Your task to perform on an android device: turn pop-ups off in chrome Image 0: 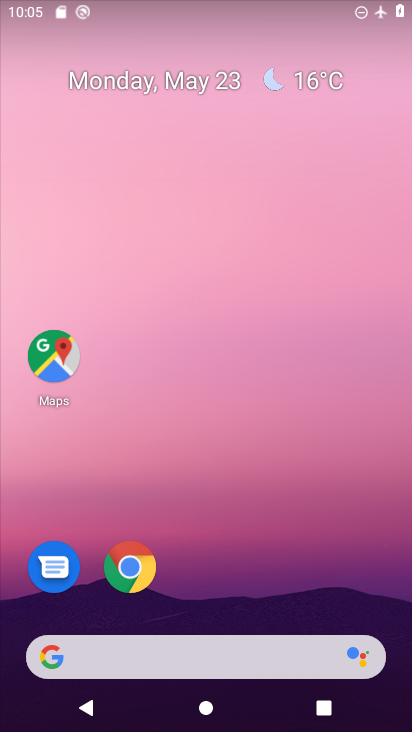
Step 0: drag from (273, 1) to (234, 0)
Your task to perform on an android device: turn pop-ups off in chrome Image 1: 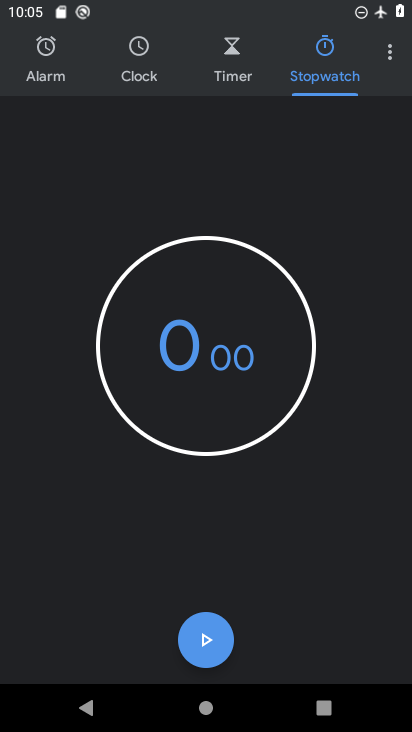
Step 1: press home button
Your task to perform on an android device: turn pop-ups off in chrome Image 2: 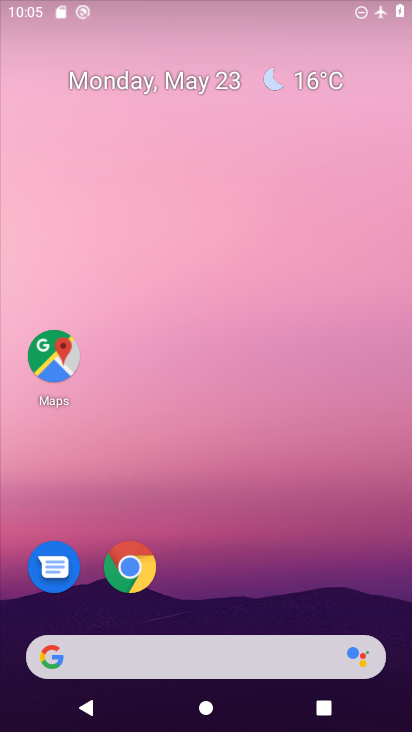
Step 2: drag from (224, 620) to (249, 9)
Your task to perform on an android device: turn pop-ups off in chrome Image 3: 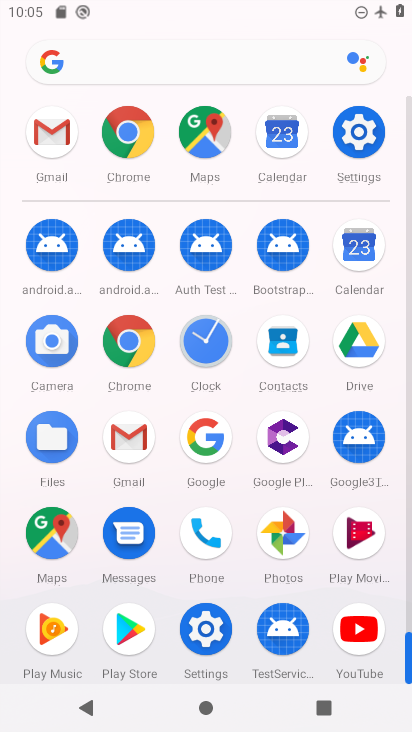
Step 3: click (128, 333)
Your task to perform on an android device: turn pop-ups off in chrome Image 4: 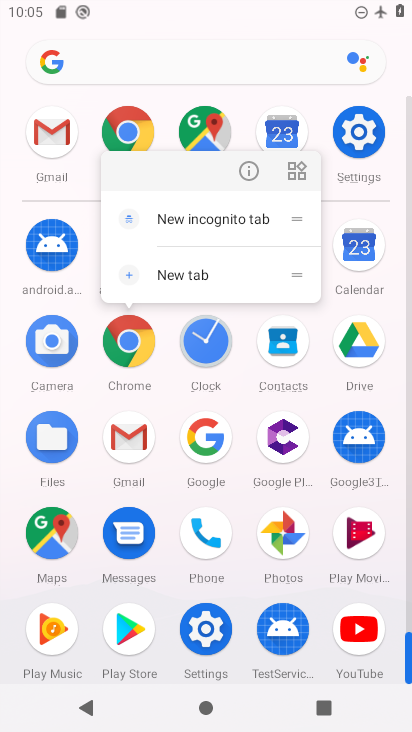
Step 4: click (255, 180)
Your task to perform on an android device: turn pop-ups off in chrome Image 5: 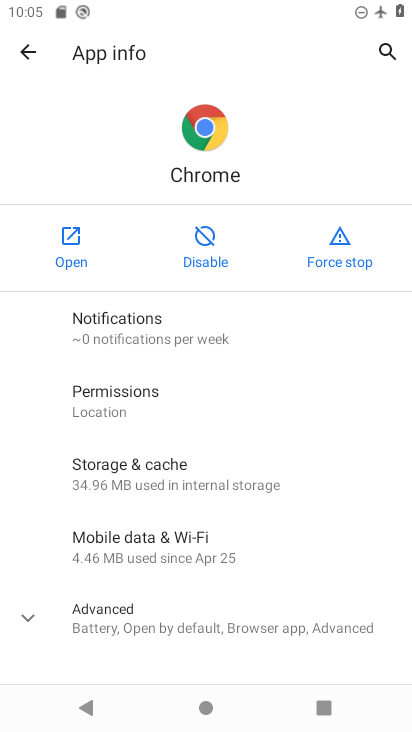
Step 5: click (71, 239)
Your task to perform on an android device: turn pop-ups off in chrome Image 6: 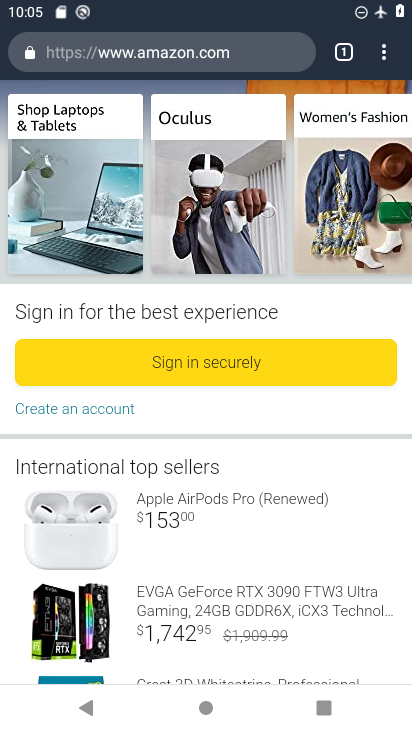
Step 6: click (385, 52)
Your task to perform on an android device: turn pop-ups off in chrome Image 7: 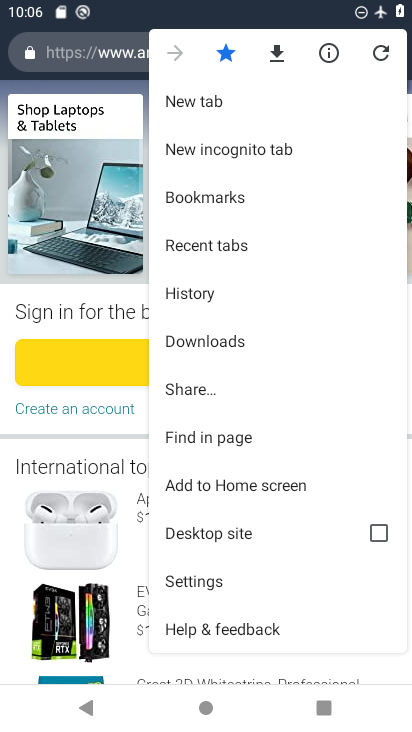
Step 7: click (204, 580)
Your task to perform on an android device: turn pop-ups off in chrome Image 8: 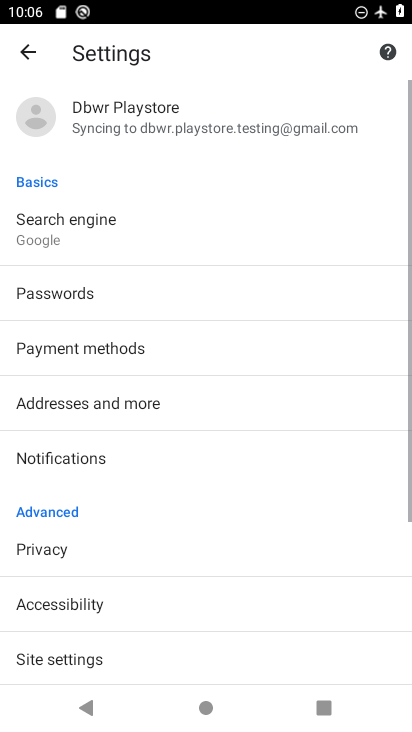
Step 8: drag from (212, 562) to (279, 84)
Your task to perform on an android device: turn pop-ups off in chrome Image 9: 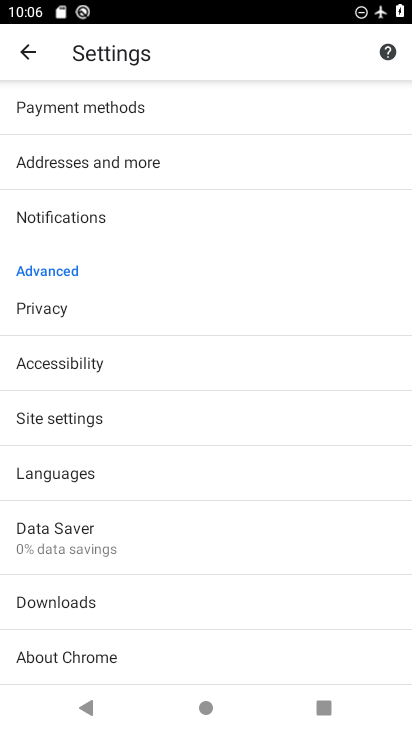
Step 9: drag from (120, 553) to (175, 358)
Your task to perform on an android device: turn pop-ups off in chrome Image 10: 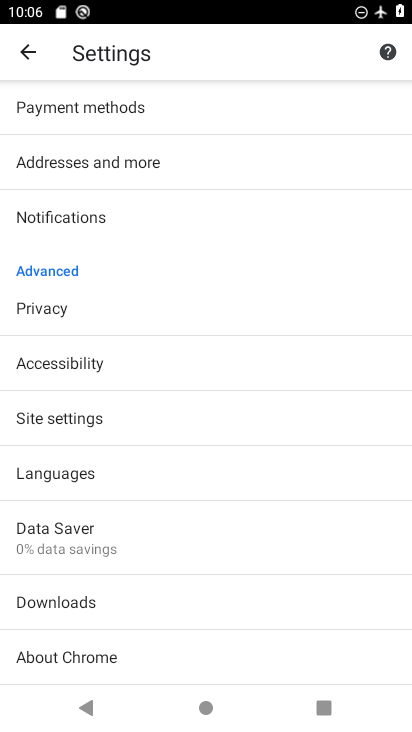
Step 10: click (72, 422)
Your task to perform on an android device: turn pop-ups off in chrome Image 11: 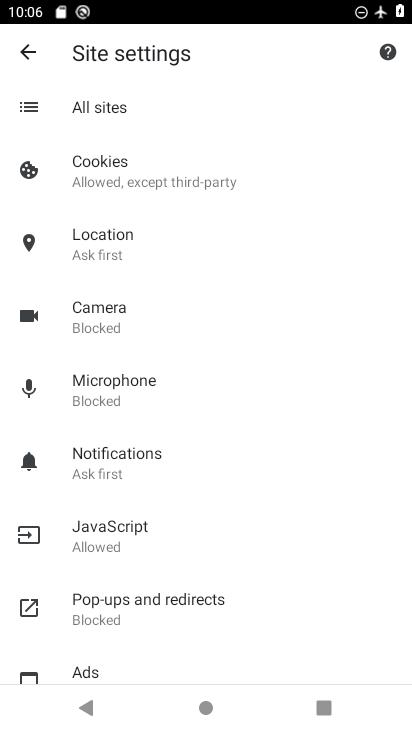
Step 11: drag from (135, 618) to (199, 236)
Your task to perform on an android device: turn pop-ups off in chrome Image 12: 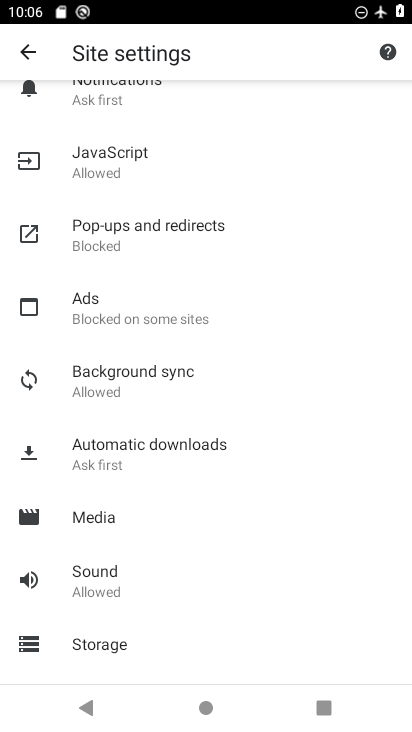
Step 12: click (146, 233)
Your task to perform on an android device: turn pop-ups off in chrome Image 13: 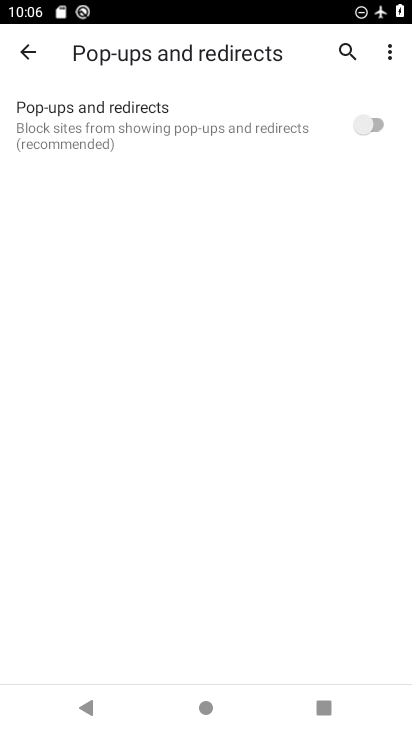
Step 13: task complete